Your task to perform on an android device: Search for Mexican restaurants on Maps Image 0: 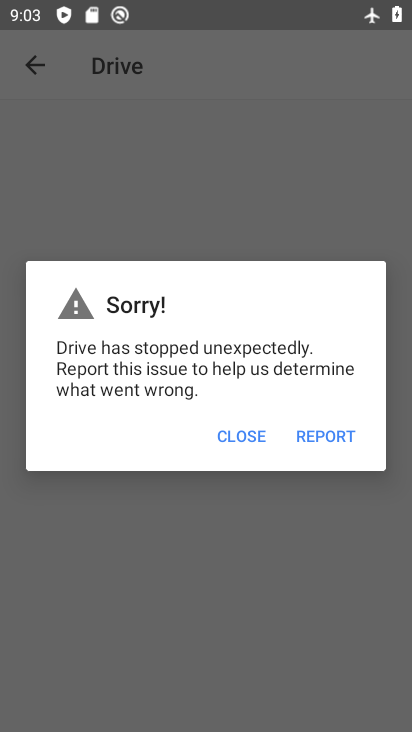
Step 0: press home button
Your task to perform on an android device: Search for Mexican restaurants on Maps Image 1: 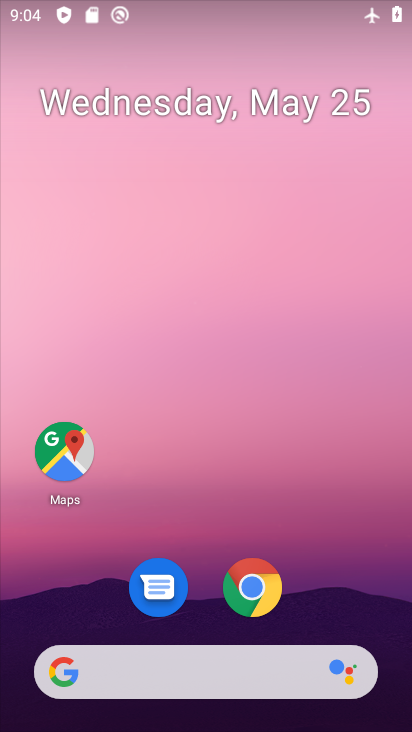
Step 1: click (70, 441)
Your task to perform on an android device: Search for Mexican restaurants on Maps Image 2: 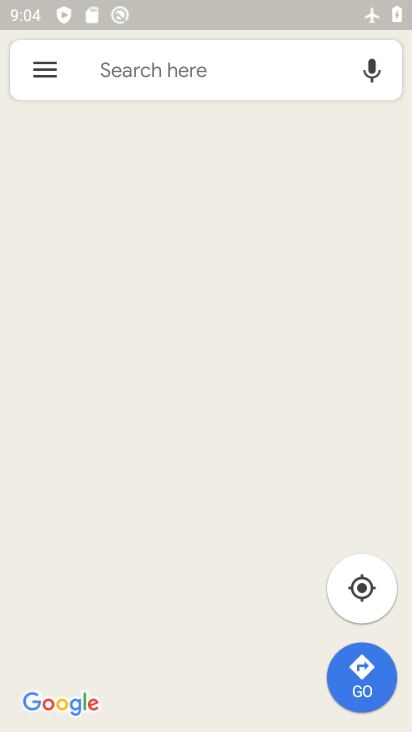
Step 2: click (226, 79)
Your task to perform on an android device: Search for Mexican restaurants on Maps Image 3: 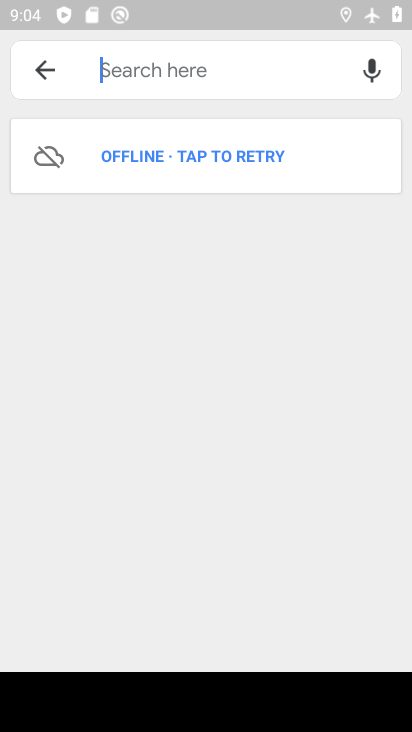
Step 3: type "mexican restaurants"
Your task to perform on an android device: Search for Mexican restaurants on Maps Image 4: 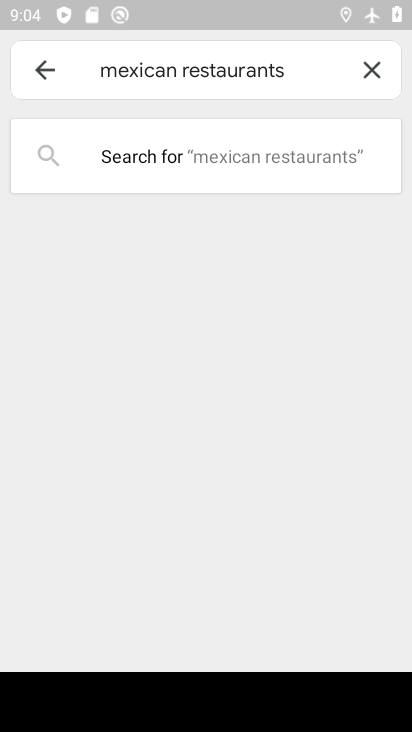
Step 4: click (254, 160)
Your task to perform on an android device: Search for Mexican restaurants on Maps Image 5: 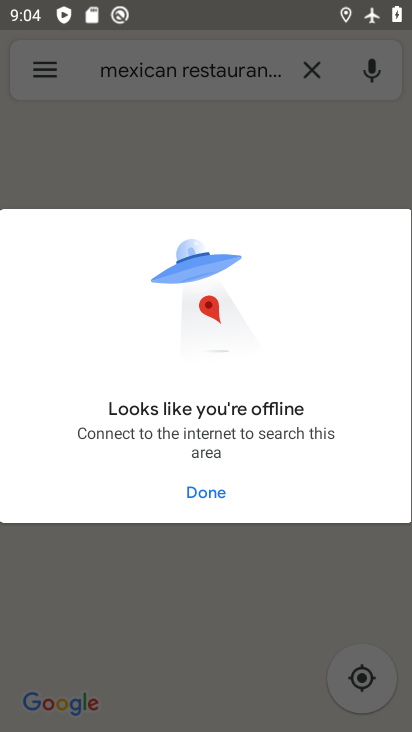
Step 5: click (208, 489)
Your task to perform on an android device: Search for Mexican restaurants on Maps Image 6: 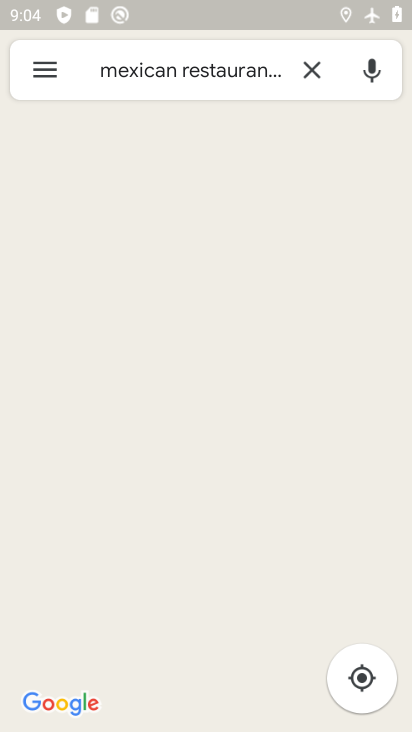
Step 6: task complete